Your task to perform on an android device: Turn off the flashlight Image 0: 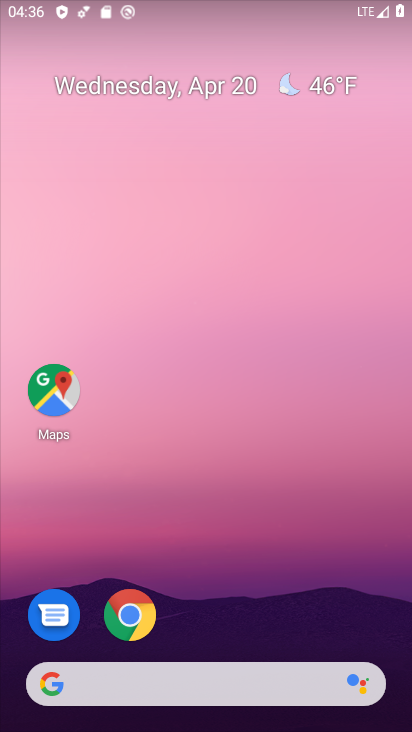
Step 0: drag from (246, 616) to (282, 21)
Your task to perform on an android device: Turn off the flashlight Image 1: 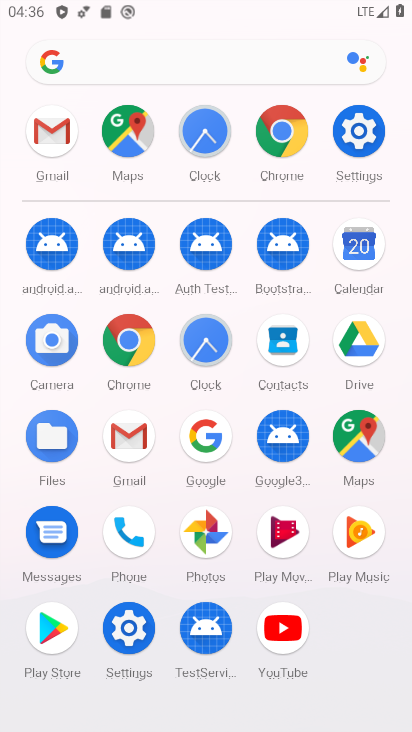
Step 1: click (360, 128)
Your task to perform on an android device: Turn off the flashlight Image 2: 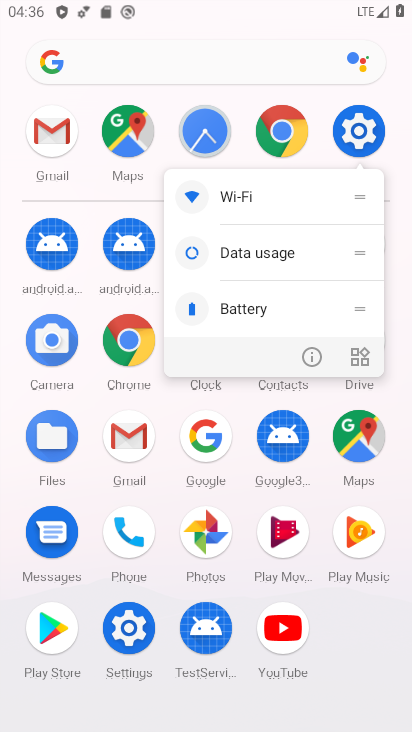
Step 2: click (364, 130)
Your task to perform on an android device: Turn off the flashlight Image 3: 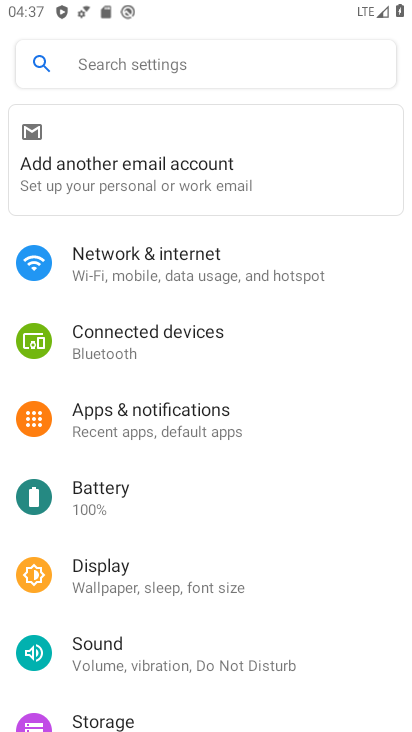
Step 3: click (174, 65)
Your task to perform on an android device: Turn off the flashlight Image 4: 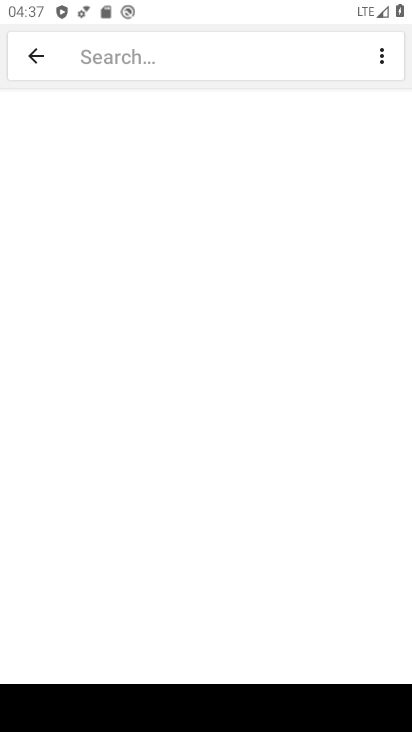
Step 4: type "flashlight"
Your task to perform on an android device: Turn off the flashlight Image 5: 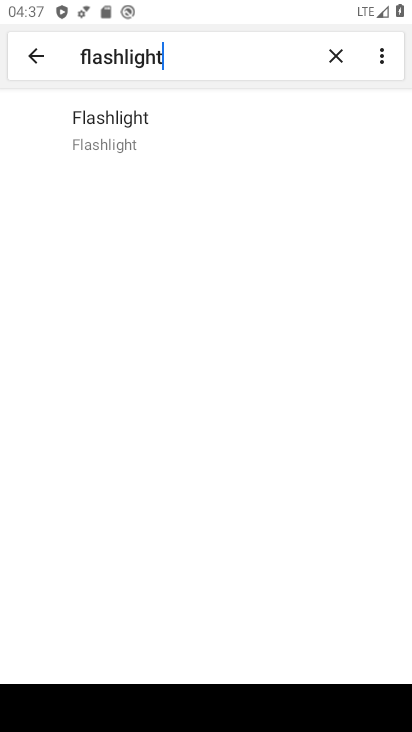
Step 5: click (172, 129)
Your task to perform on an android device: Turn off the flashlight Image 6: 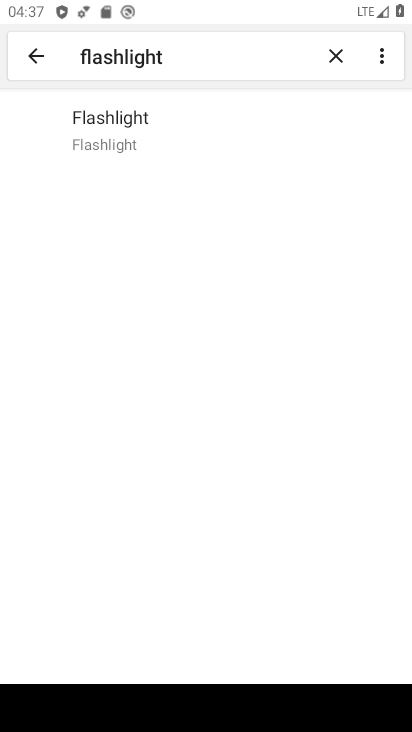
Step 6: task complete